Your task to perform on an android device: toggle location history Image 0: 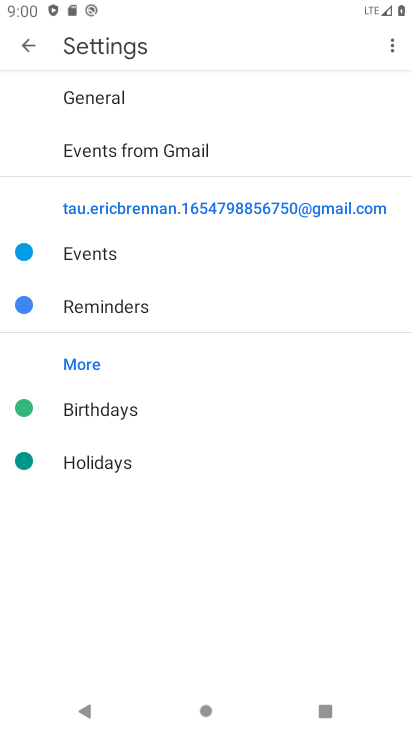
Step 0: press home button
Your task to perform on an android device: toggle location history Image 1: 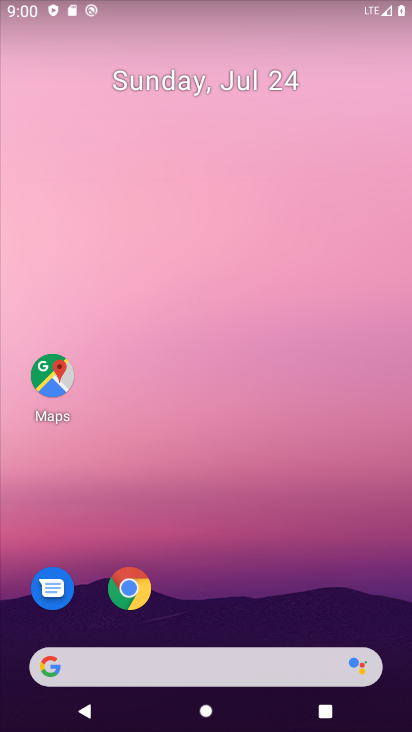
Step 1: drag from (257, 634) to (182, 160)
Your task to perform on an android device: toggle location history Image 2: 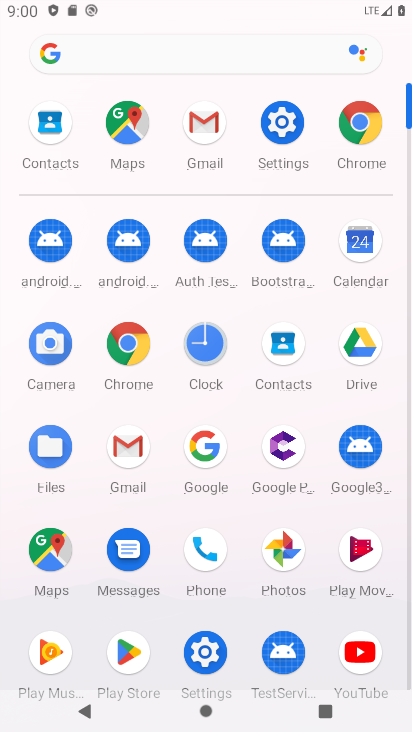
Step 2: click (118, 123)
Your task to perform on an android device: toggle location history Image 3: 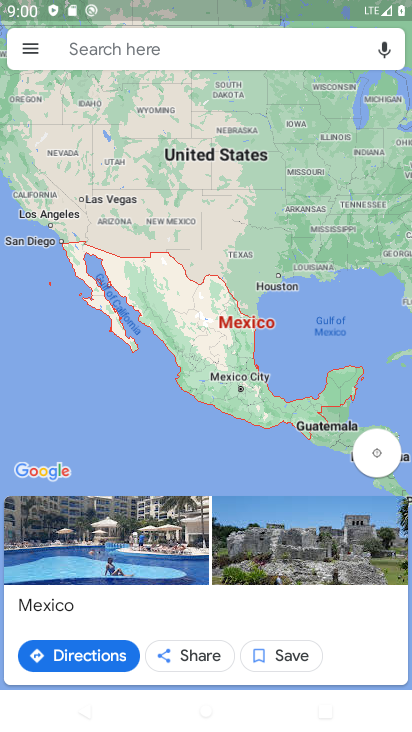
Step 3: click (20, 45)
Your task to perform on an android device: toggle location history Image 4: 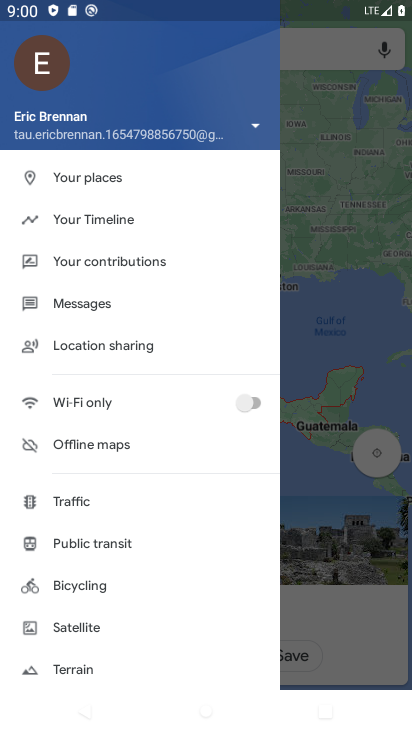
Step 4: click (158, 231)
Your task to perform on an android device: toggle location history Image 5: 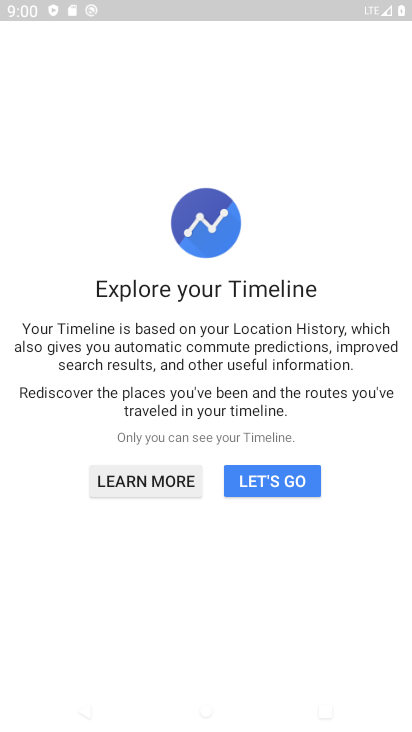
Step 5: click (260, 481)
Your task to perform on an android device: toggle location history Image 6: 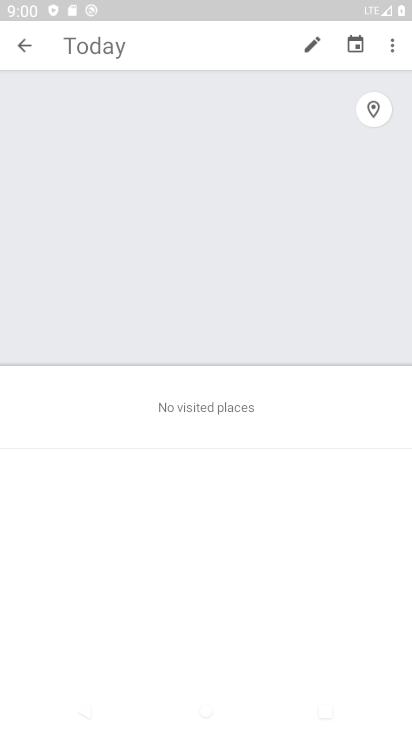
Step 6: click (390, 44)
Your task to perform on an android device: toggle location history Image 7: 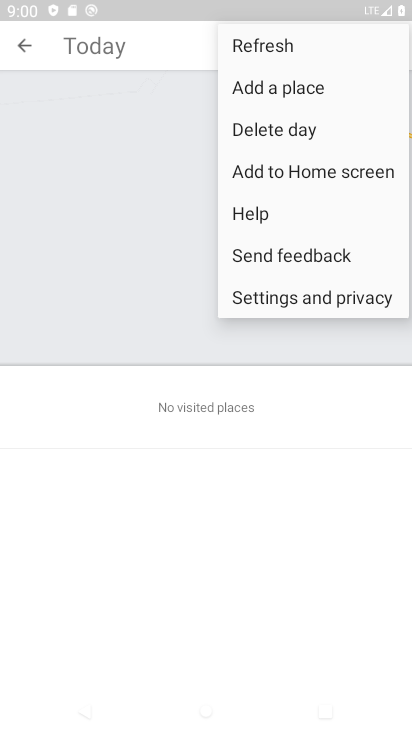
Step 7: click (313, 299)
Your task to perform on an android device: toggle location history Image 8: 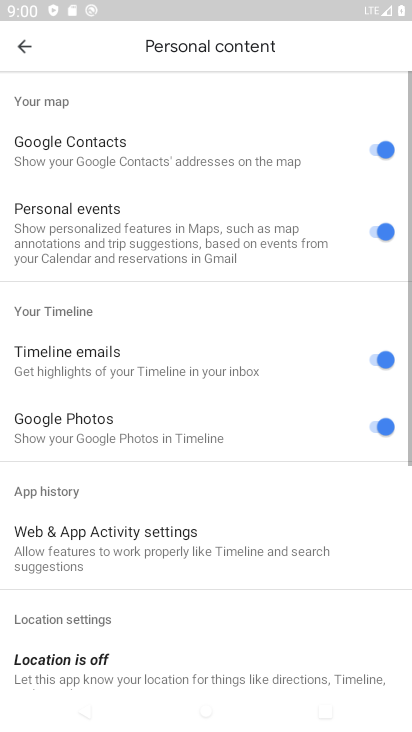
Step 8: drag from (160, 446) to (137, 14)
Your task to perform on an android device: toggle location history Image 9: 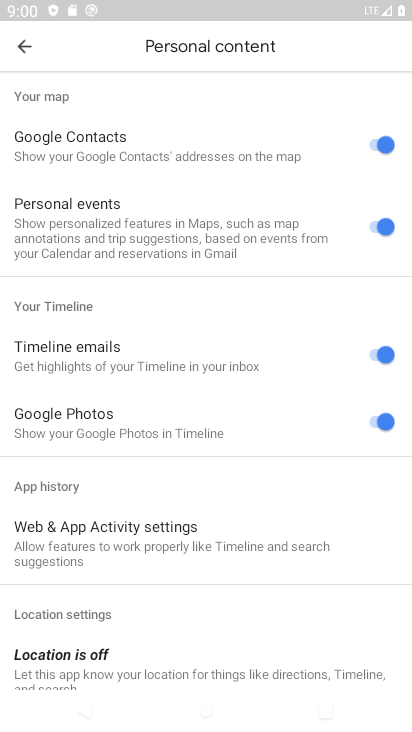
Step 9: drag from (239, 591) to (218, 151)
Your task to perform on an android device: toggle location history Image 10: 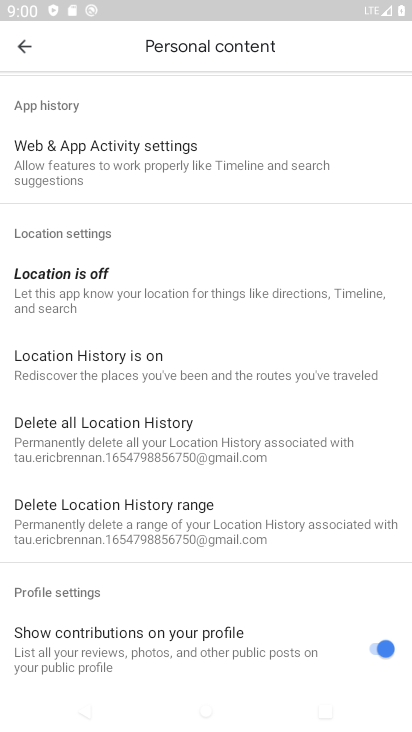
Step 10: click (145, 358)
Your task to perform on an android device: toggle location history Image 11: 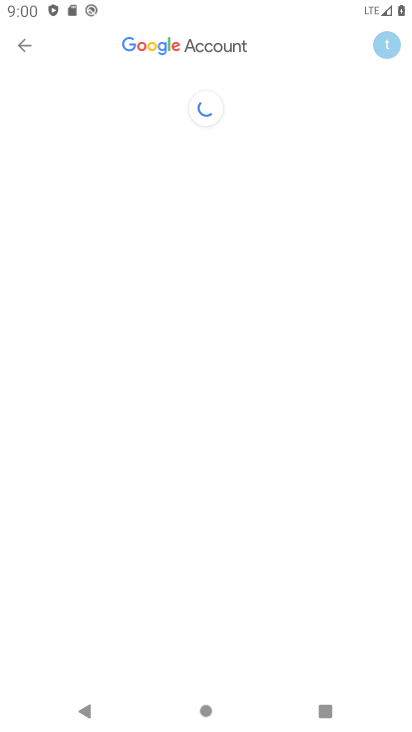
Step 11: drag from (214, 589) to (254, 3)
Your task to perform on an android device: toggle location history Image 12: 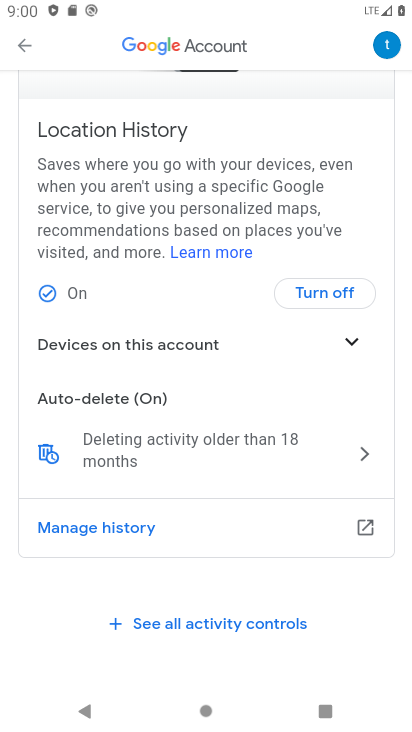
Step 12: click (327, 299)
Your task to perform on an android device: toggle location history Image 13: 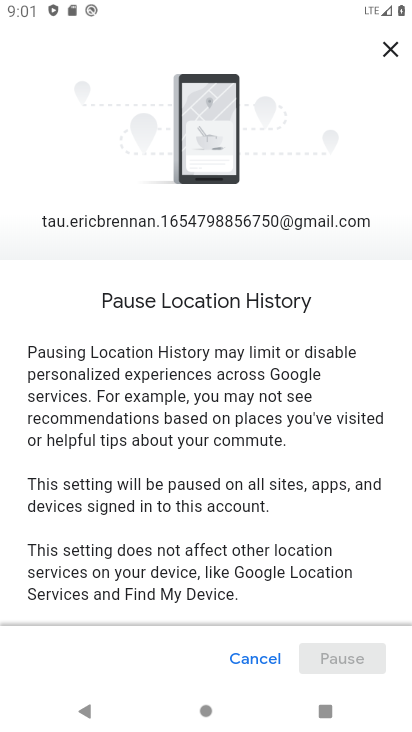
Step 13: drag from (210, 89) to (314, 16)
Your task to perform on an android device: toggle location history Image 14: 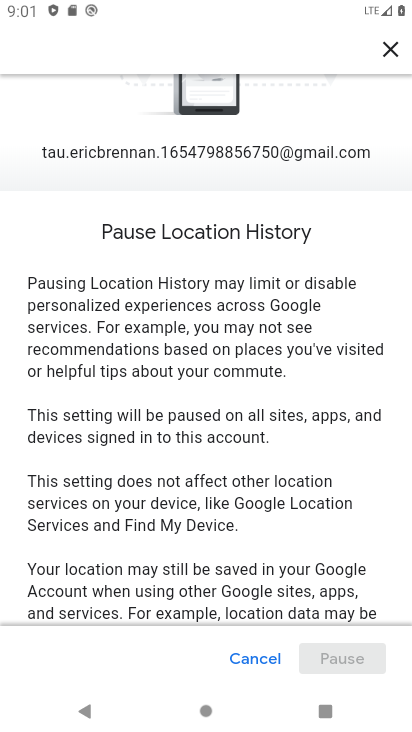
Step 14: drag from (341, 536) to (281, 21)
Your task to perform on an android device: toggle location history Image 15: 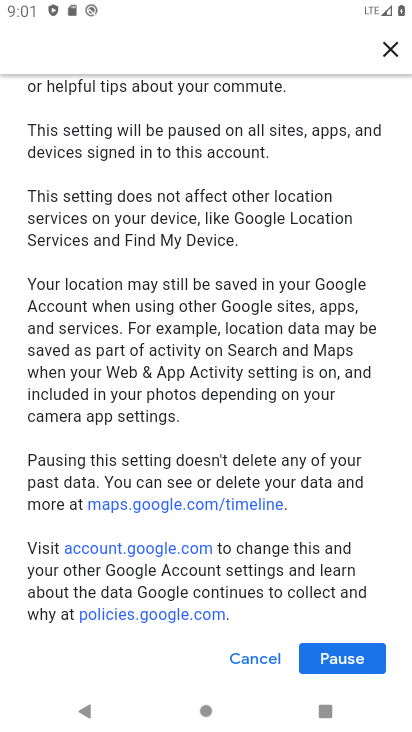
Step 15: click (342, 654)
Your task to perform on an android device: toggle location history Image 16: 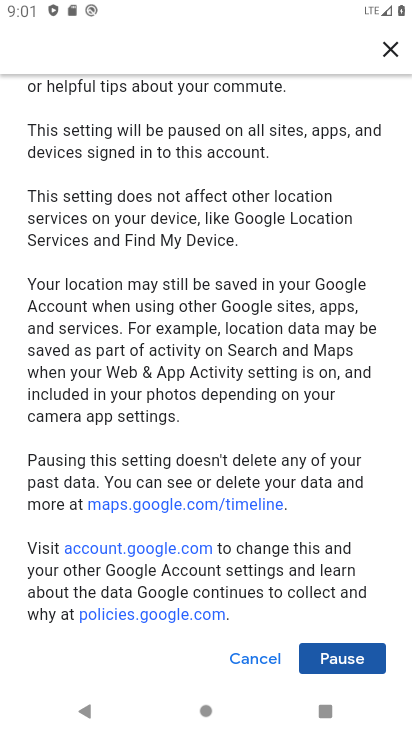
Step 16: task complete